Your task to perform on an android device: Open Google Maps and go to "Timeline" Image 0: 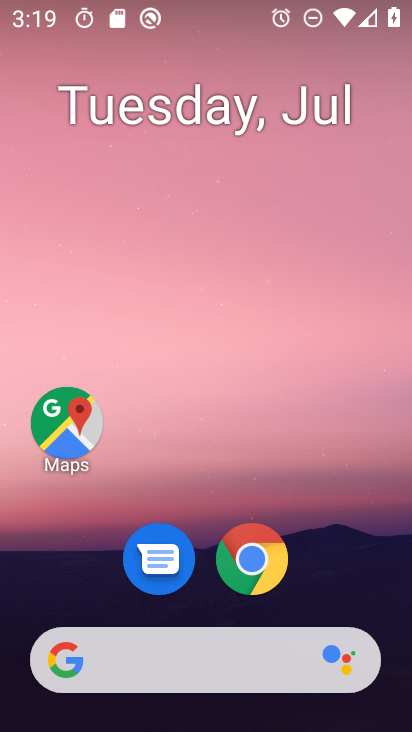
Step 0: drag from (364, 564) to (389, 132)
Your task to perform on an android device: Open Google Maps and go to "Timeline" Image 1: 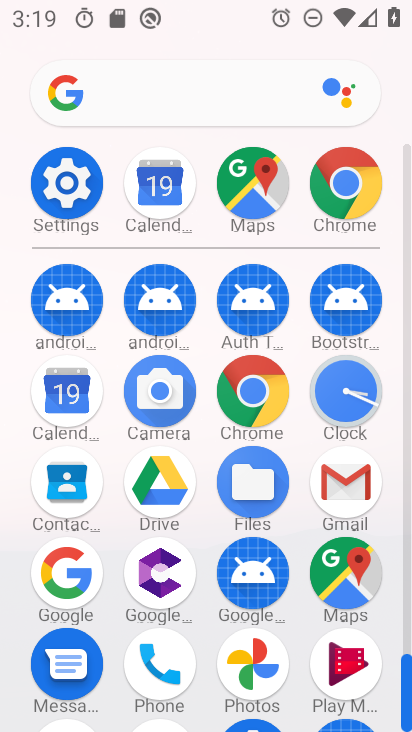
Step 1: click (349, 573)
Your task to perform on an android device: Open Google Maps and go to "Timeline" Image 2: 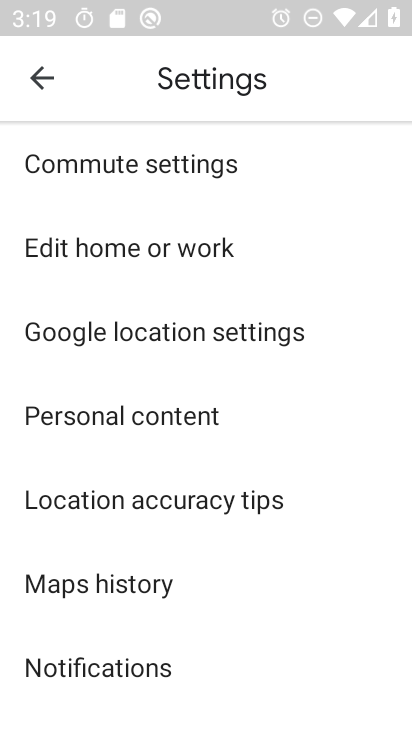
Step 2: press back button
Your task to perform on an android device: Open Google Maps and go to "Timeline" Image 3: 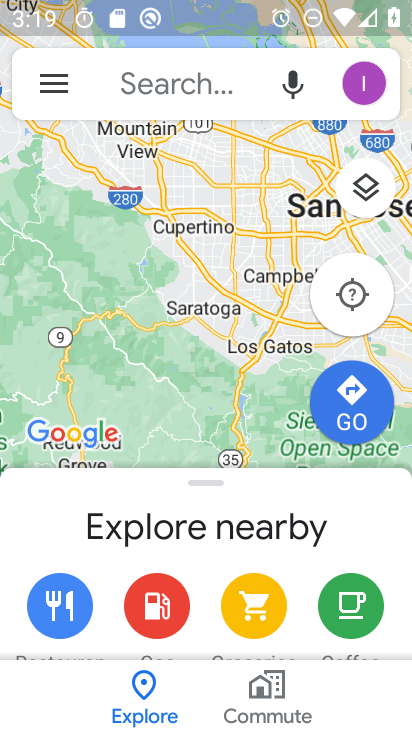
Step 3: click (60, 92)
Your task to perform on an android device: Open Google Maps and go to "Timeline" Image 4: 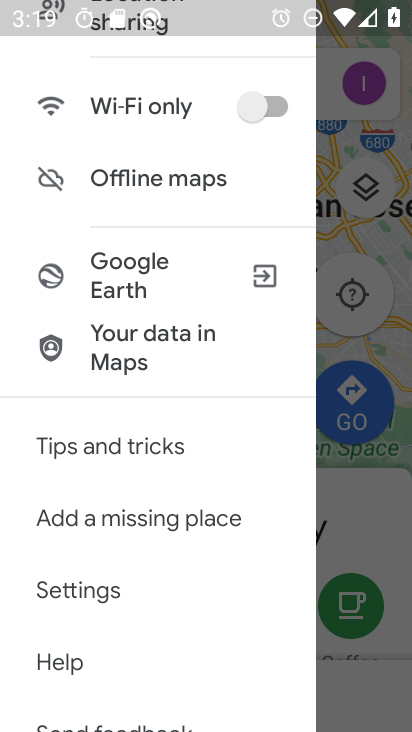
Step 4: drag from (183, 223) to (192, 326)
Your task to perform on an android device: Open Google Maps and go to "Timeline" Image 5: 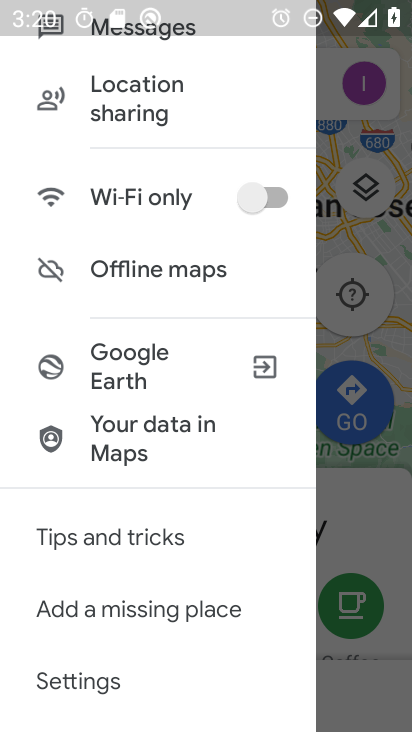
Step 5: drag from (186, 226) to (201, 342)
Your task to perform on an android device: Open Google Maps and go to "Timeline" Image 6: 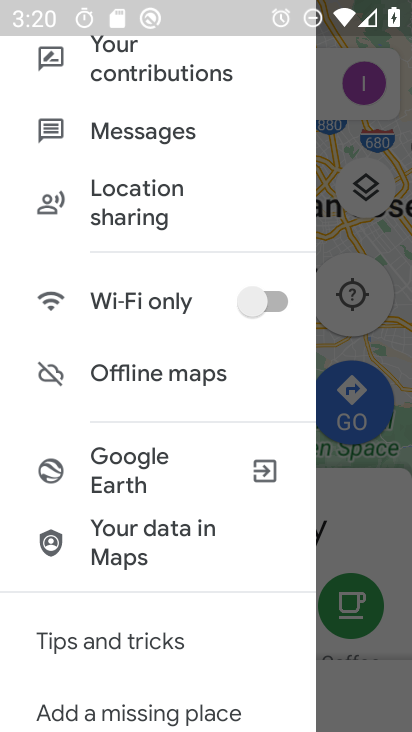
Step 6: drag from (206, 269) to (211, 423)
Your task to perform on an android device: Open Google Maps and go to "Timeline" Image 7: 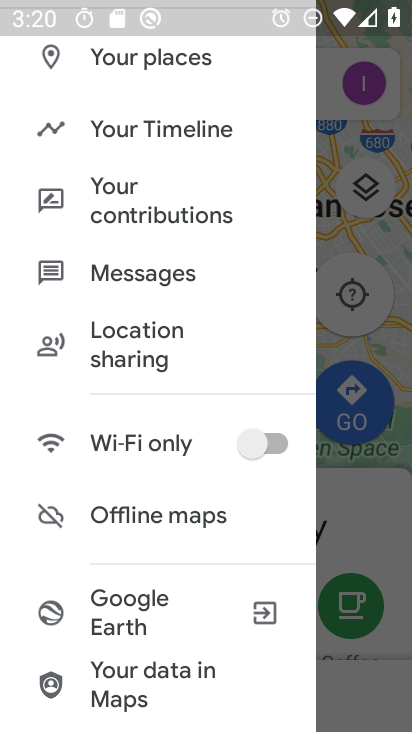
Step 7: drag from (195, 245) to (186, 409)
Your task to perform on an android device: Open Google Maps and go to "Timeline" Image 8: 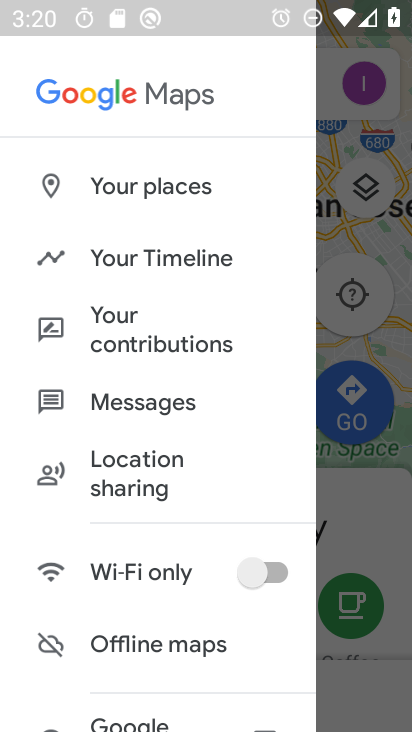
Step 8: click (183, 264)
Your task to perform on an android device: Open Google Maps and go to "Timeline" Image 9: 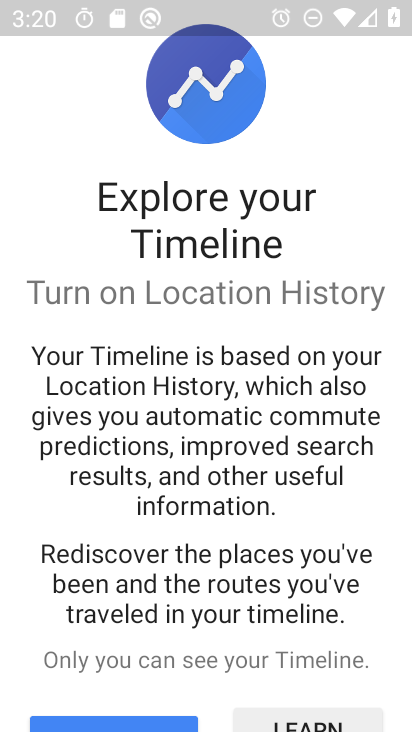
Step 9: task complete